Your task to perform on an android device: Search for the best rated electric lawnmower on Home Depot Image 0: 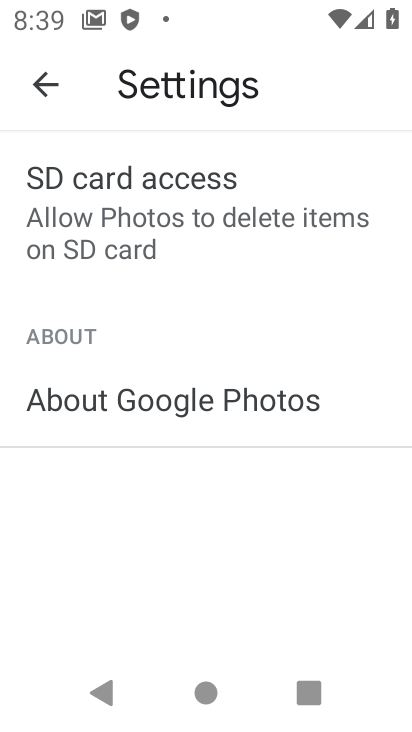
Step 0: click (289, 579)
Your task to perform on an android device: Search for the best rated electric lawnmower on Home Depot Image 1: 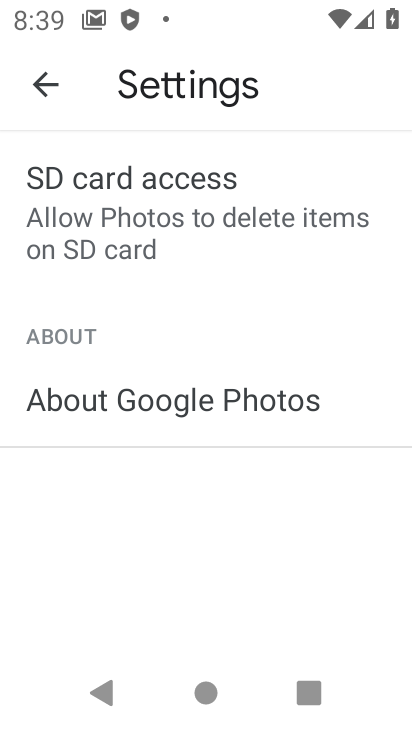
Step 1: press home button
Your task to perform on an android device: Search for the best rated electric lawnmower on Home Depot Image 2: 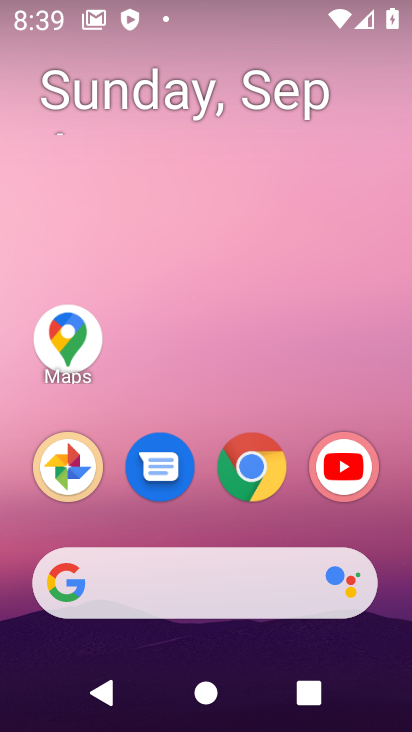
Step 2: click (297, 467)
Your task to perform on an android device: Search for the best rated electric lawnmower on Home Depot Image 3: 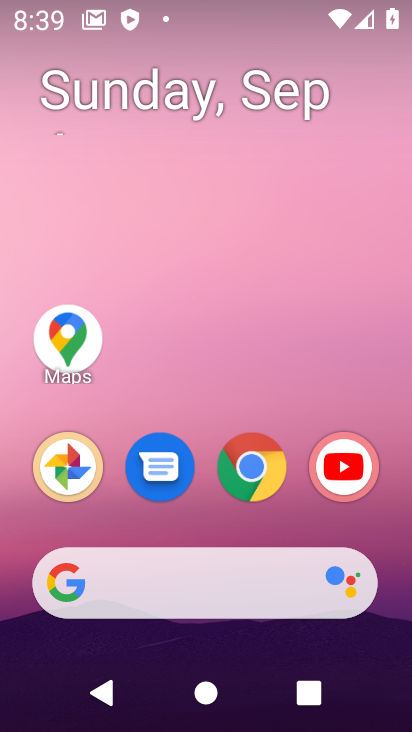
Step 3: click (247, 466)
Your task to perform on an android device: Search for the best rated electric lawnmower on Home Depot Image 4: 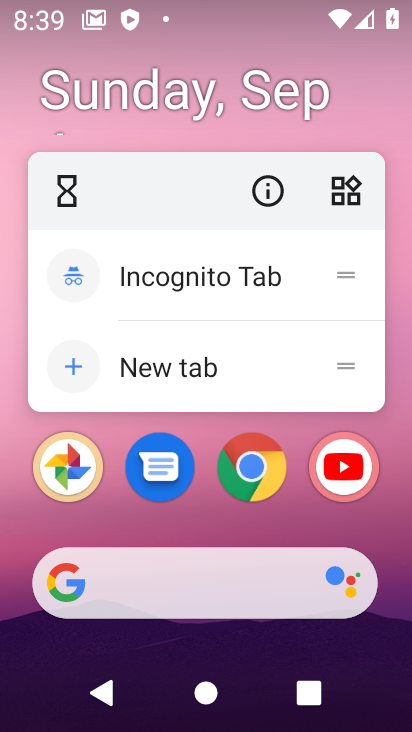
Step 4: click (253, 480)
Your task to perform on an android device: Search for the best rated electric lawnmower on Home Depot Image 5: 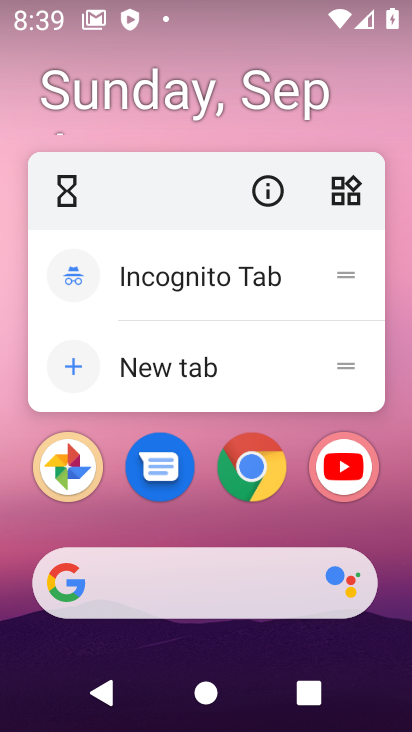
Step 5: click (243, 490)
Your task to perform on an android device: Search for the best rated electric lawnmower on Home Depot Image 6: 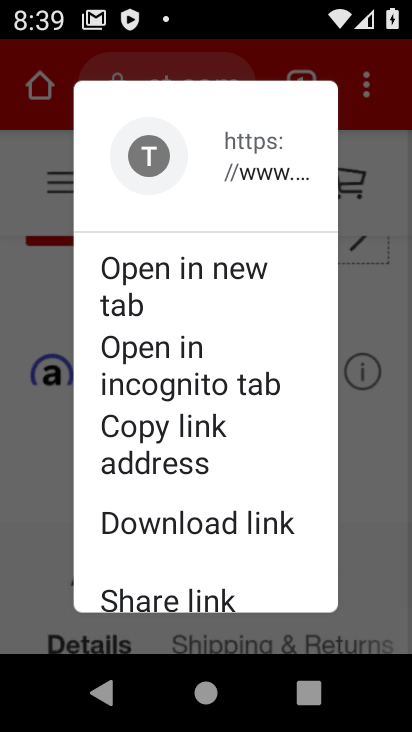
Step 6: click (368, 479)
Your task to perform on an android device: Search for the best rated electric lawnmower on Home Depot Image 7: 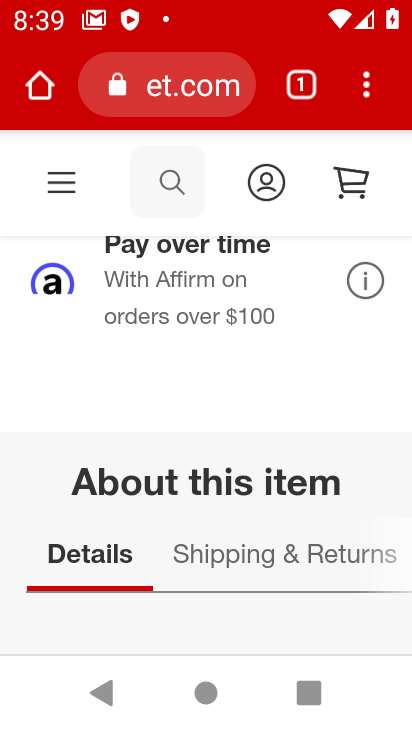
Step 7: click (180, 85)
Your task to perform on an android device: Search for the best rated electric lawnmower on Home Depot Image 8: 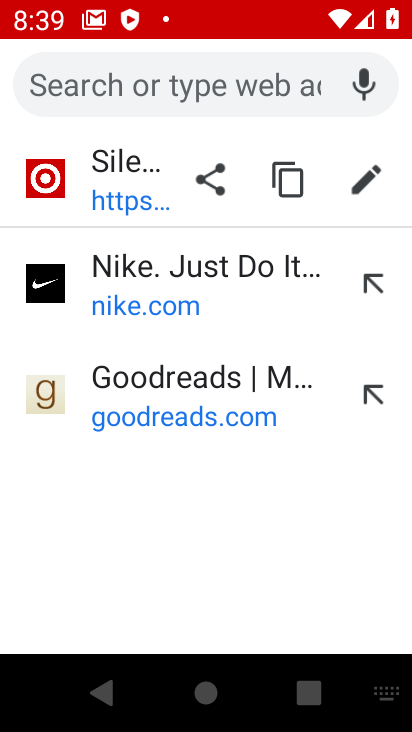
Step 8: type "home depot"
Your task to perform on an android device: Search for the best rated electric lawnmower on Home Depot Image 9: 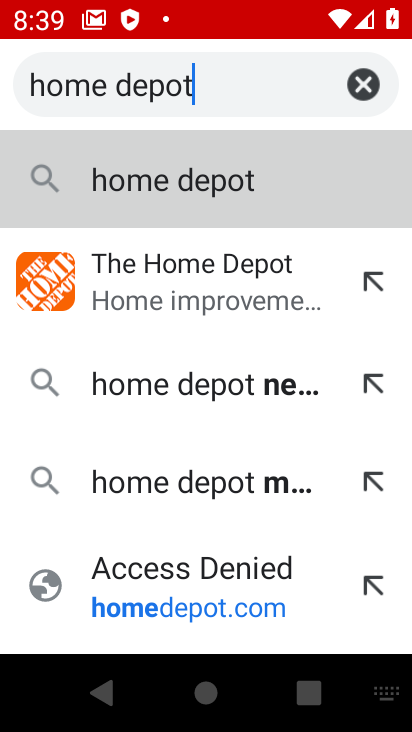
Step 9: click (210, 280)
Your task to perform on an android device: Search for the best rated electric lawnmower on Home Depot Image 10: 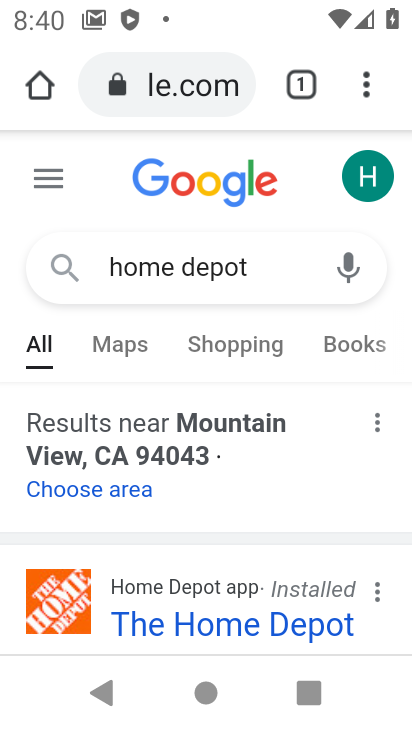
Step 10: click (166, 626)
Your task to perform on an android device: Search for the best rated electric lawnmower on Home Depot Image 11: 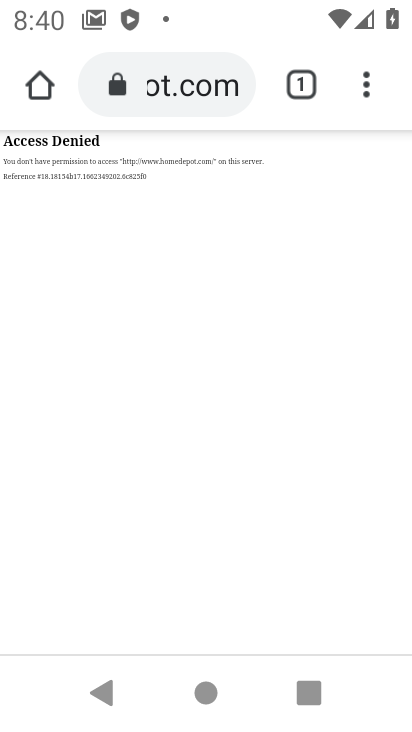
Step 11: drag from (383, 550) to (405, 381)
Your task to perform on an android device: Search for the best rated electric lawnmower on Home Depot Image 12: 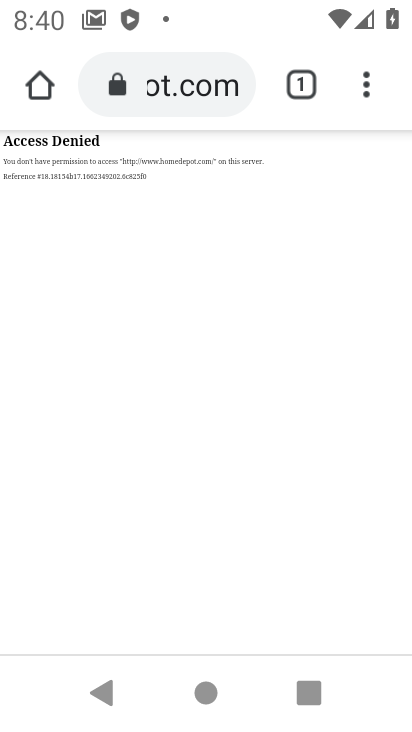
Step 12: drag from (329, 498) to (290, 223)
Your task to perform on an android device: Search for the best rated electric lawnmower on Home Depot Image 13: 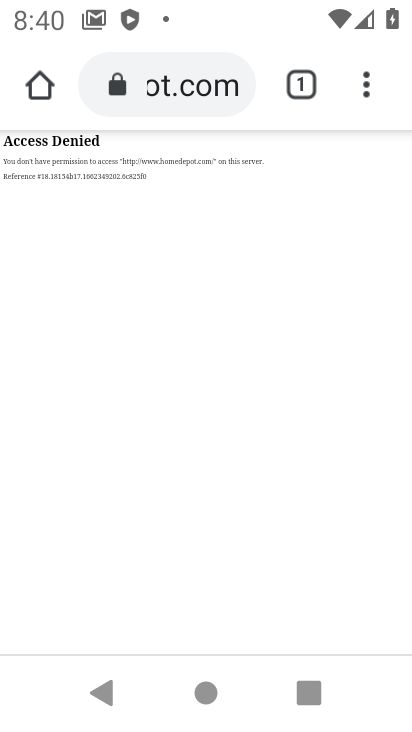
Step 13: drag from (273, 524) to (254, 249)
Your task to perform on an android device: Search for the best rated electric lawnmower on Home Depot Image 14: 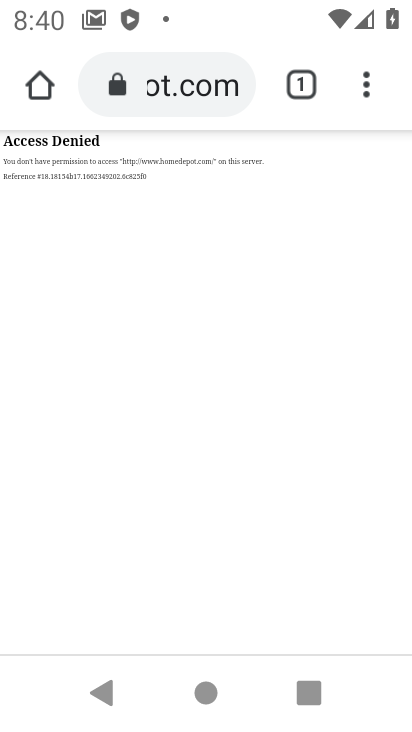
Step 14: click (307, 178)
Your task to perform on an android device: Search for the best rated electric lawnmower on Home Depot Image 15: 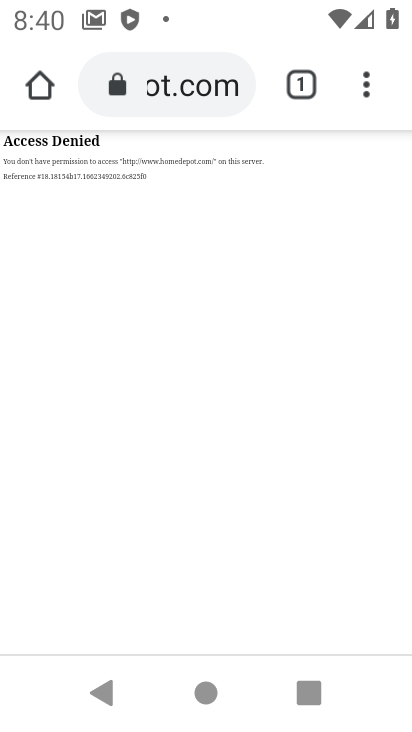
Step 15: task complete